Your task to perform on an android device: When is my next appointment? Image 0: 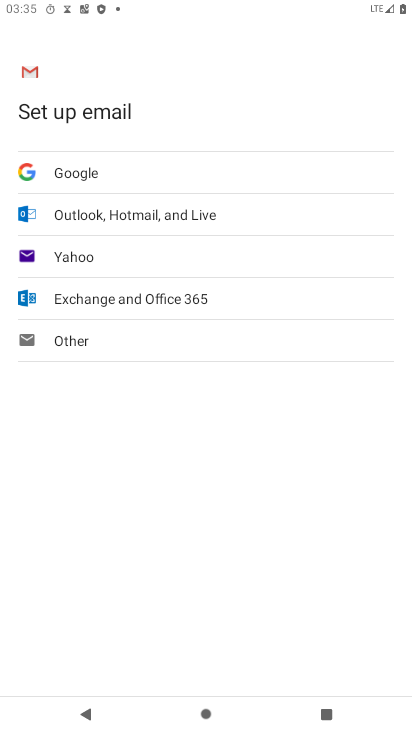
Step 0: press home button
Your task to perform on an android device: When is my next appointment? Image 1: 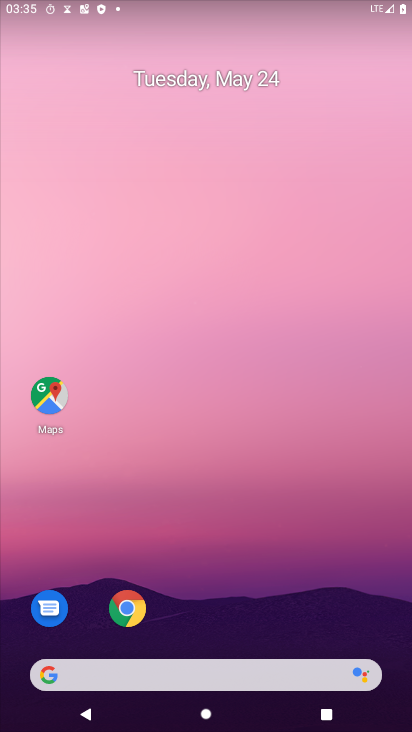
Step 1: drag from (191, 622) to (104, 165)
Your task to perform on an android device: When is my next appointment? Image 2: 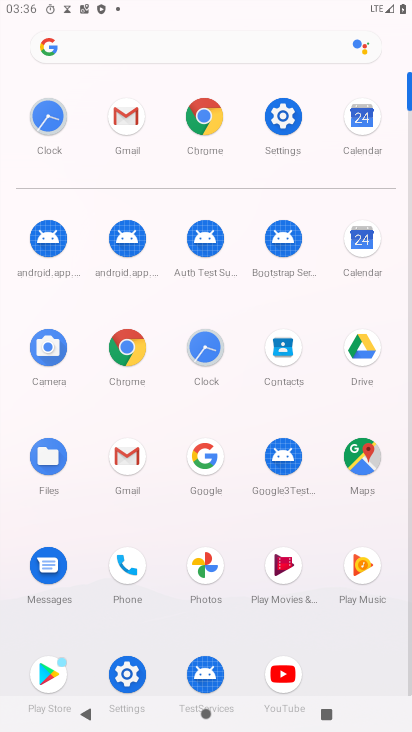
Step 2: click (353, 250)
Your task to perform on an android device: When is my next appointment? Image 3: 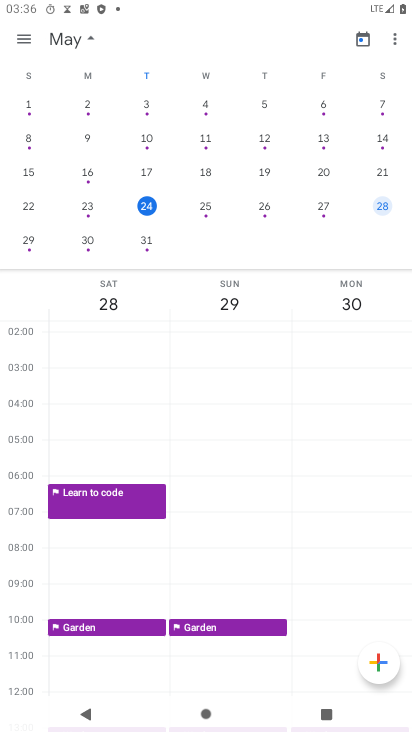
Step 3: click (153, 209)
Your task to perform on an android device: When is my next appointment? Image 4: 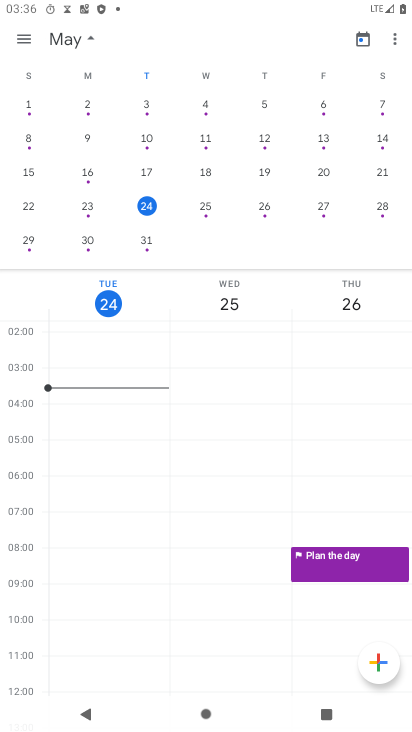
Step 4: click (30, 42)
Your task to perform on an android device: When is my next appointment? Image 5: 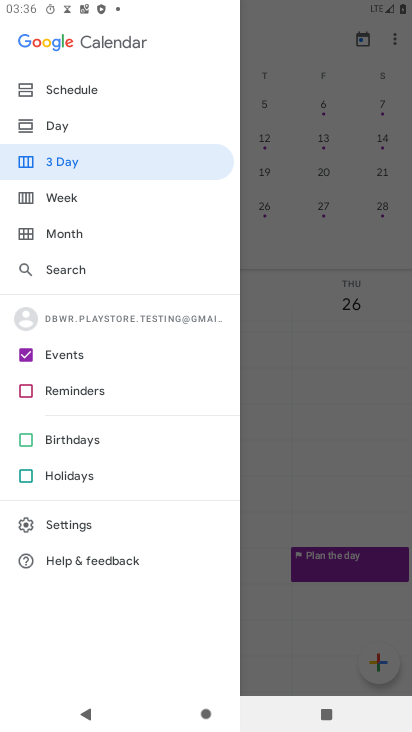
Step 5: click (65, 85)
Your task to perform on an android device: When is my next appointment? Image 6: 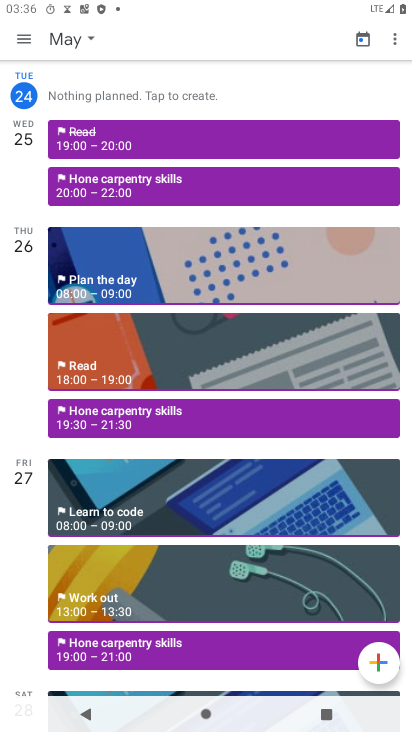
Step 6: task complete